Your task to perform on an android device: Open ESPN.com Image 0: 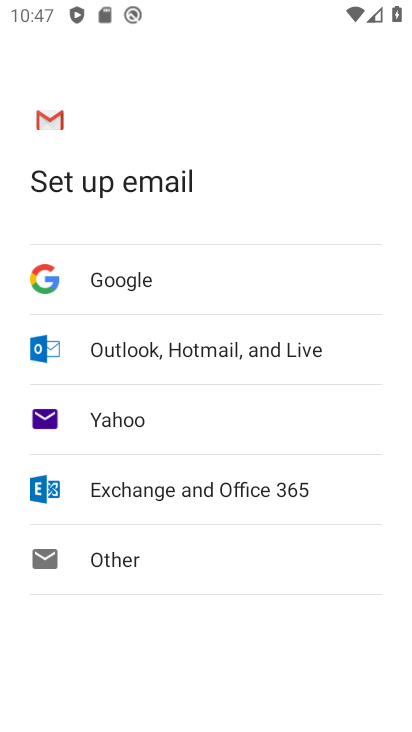
Step 0: press home button
Your task to perform on an android device: Open ESPN.com Image 1: 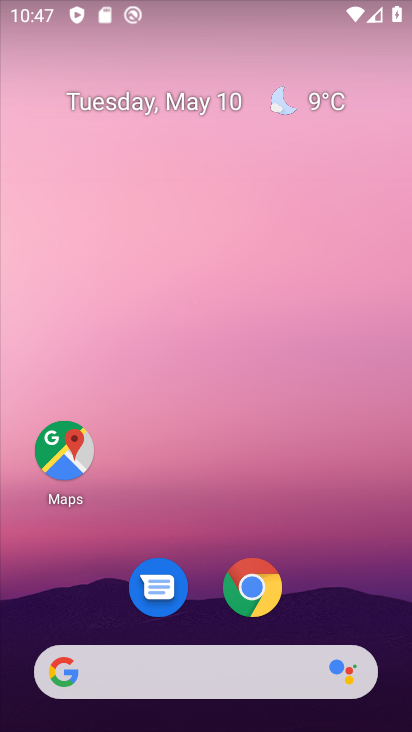
Step 1: click (246, 601)
Your task to perform on an android device: Open ESPN.com Image 2: 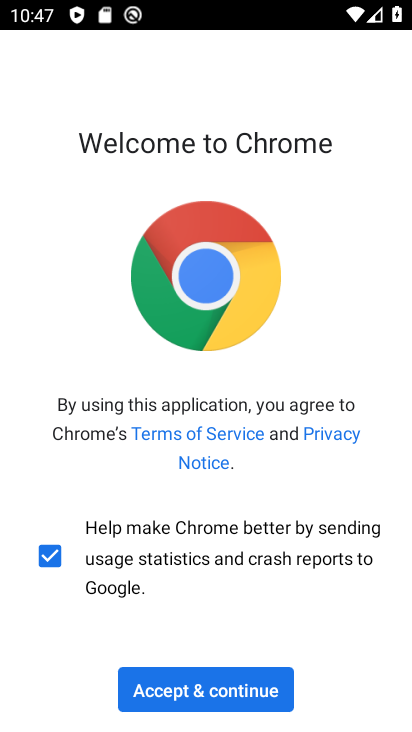
Step 2: click (168, 680)
Your task to perform on an android device: Open ESPN.com Image 3: 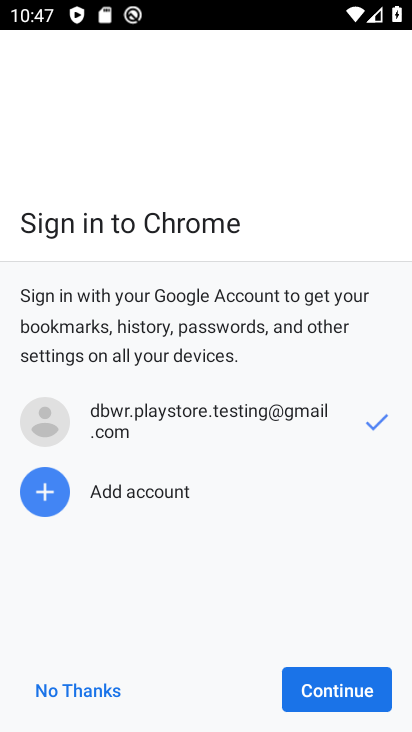
Step 3: click (83, 681)
Your task to perform on an android device: Open ESPN.com Image 4: 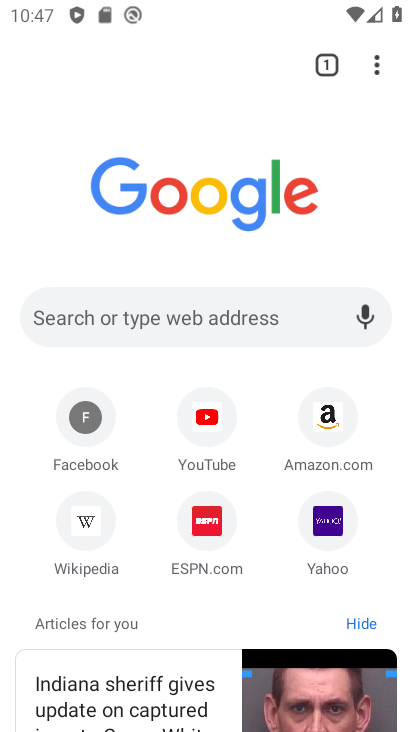
Step 4: click (196, 532)
Your task to perform on an android device: Open ESPN.com Image 5: 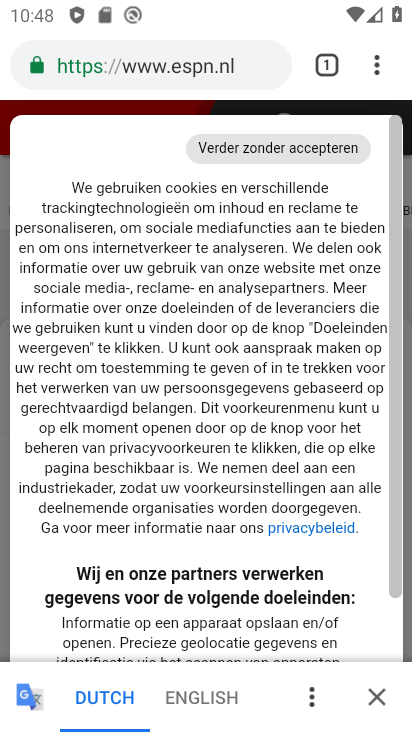
Step 5: task complete